Your task to perform on an android device: delete browsing data in the chrome app Image 0: 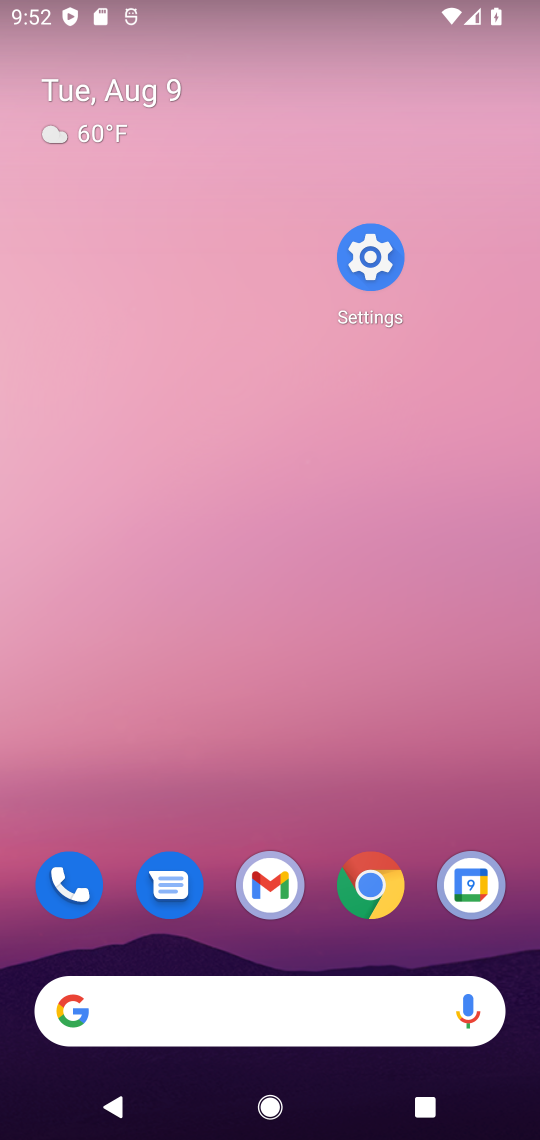
Step 0: press home button
Your task to perform on an android device: delete browsing data in the chrome app Image 1: 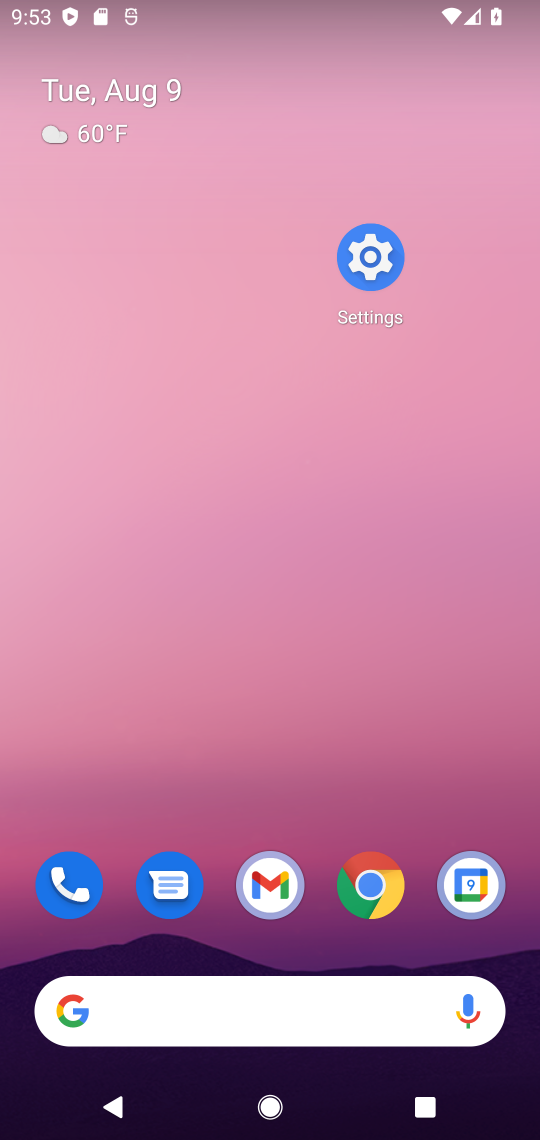
Step 1: drag from (315, 836) to (301, 78)
Your task to perform on an android device: delete browsing data in the chrome app Image 2: 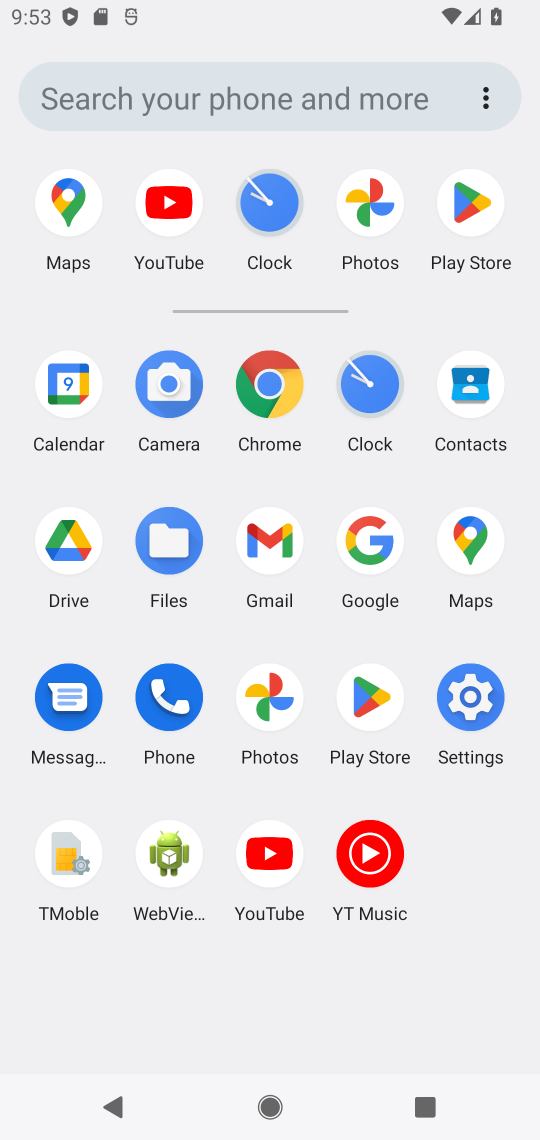
Step 2: click (263, 373)
Your task to perform on an android device: delete browsing data in the chrome app Image 3: 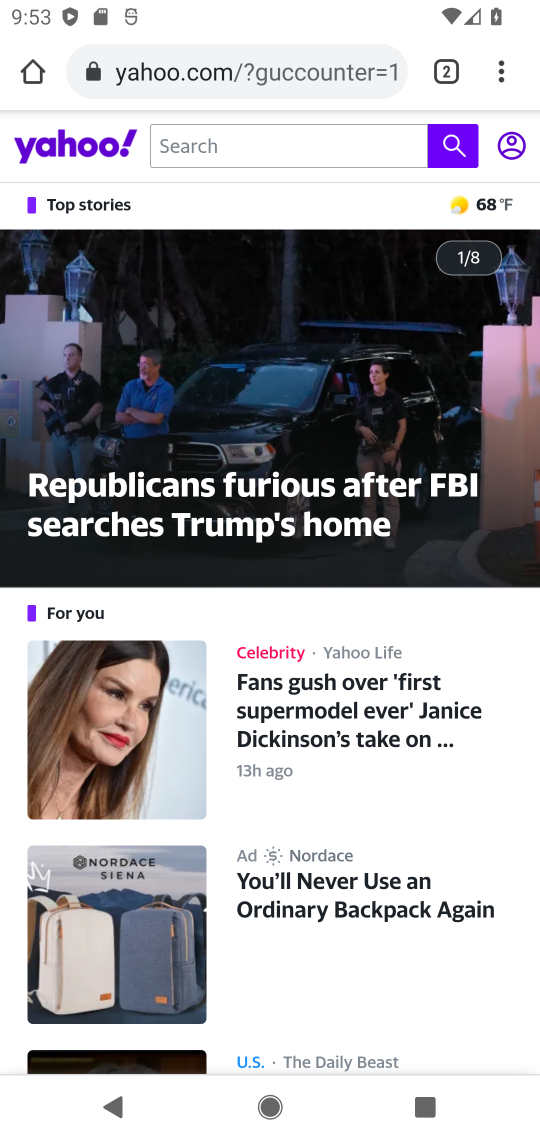
Step 3: click (503, 61)
Your task to perform on an android device: delete browsing data in the chrome app Image 4: 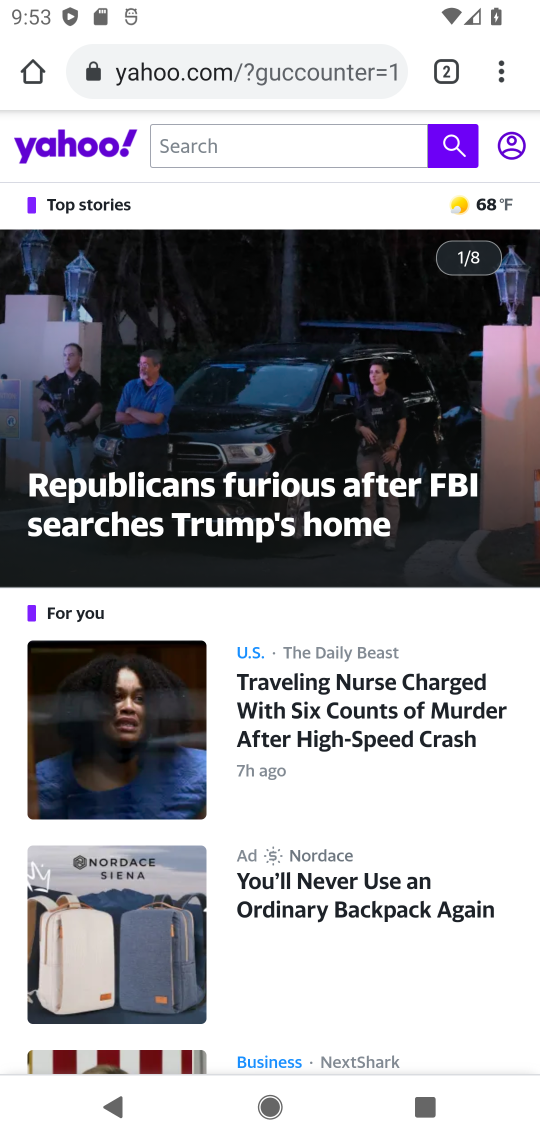
Step 4: click (491, 61)
Your task to perform on an android device: delete browsing data in the chrome app Image 5: 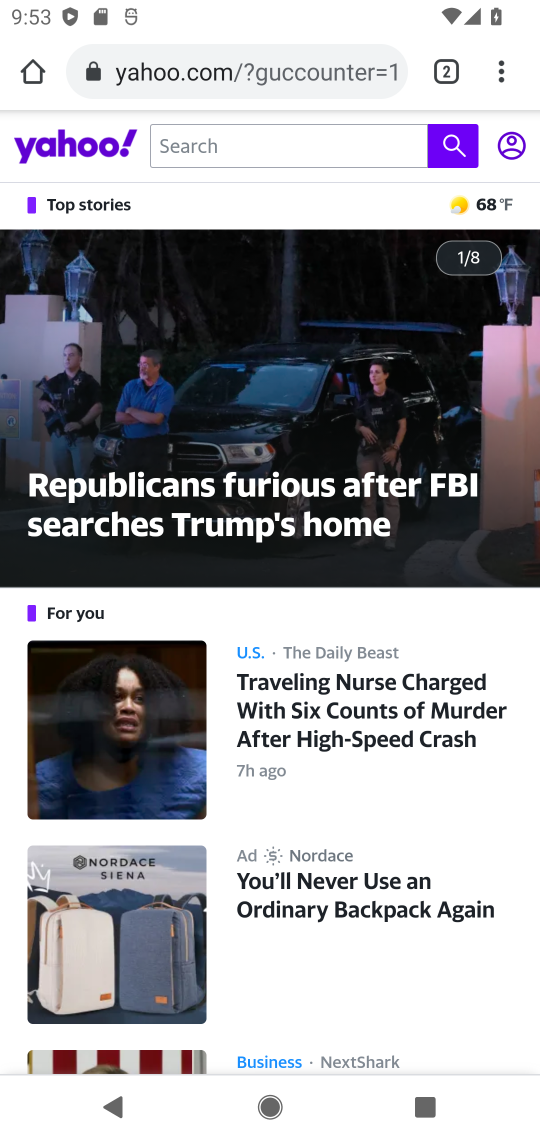
Step 5: click (503, 73)
Your task to perform on an android device: delete browsing data in the chrome app Image 6: 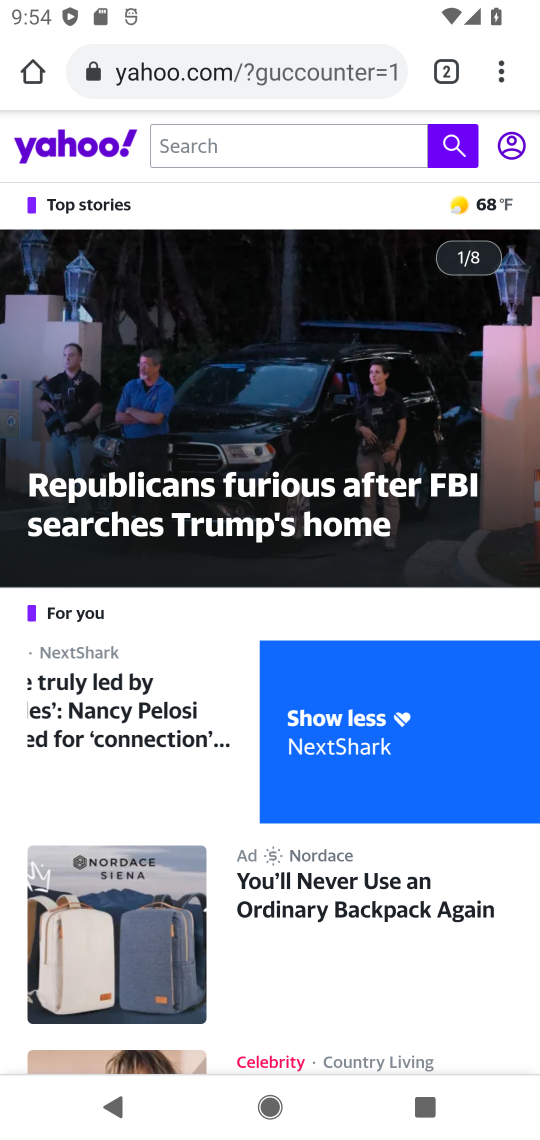
Step 6: click (501, 67)
Your task to perform on an android device: delete browsing data in the chrome app Image 7: 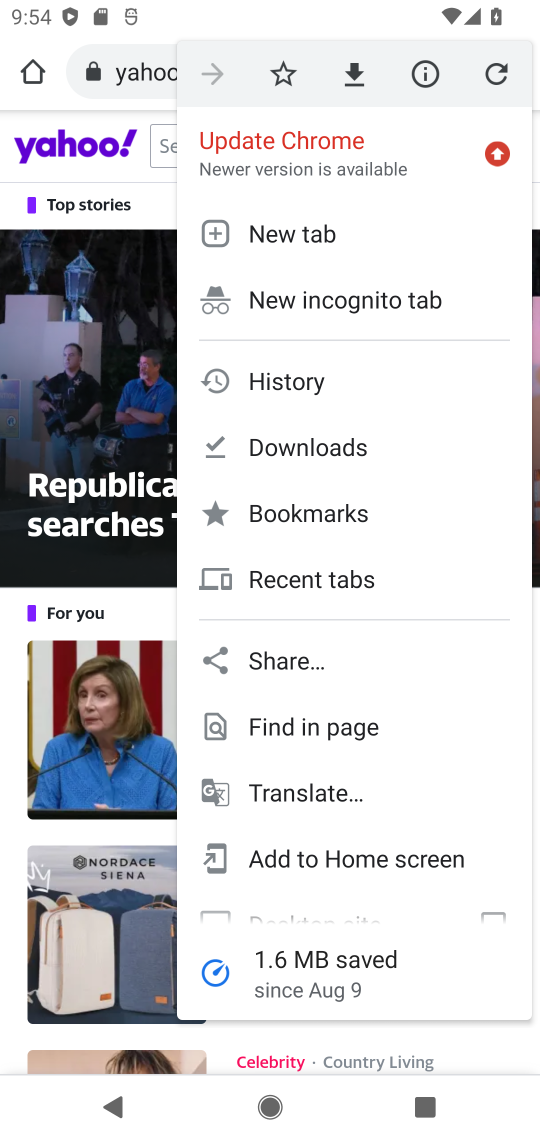
Step 7: drag from (351, 847) to (340, 286)
Your task to perform on an android device: delete browsing data in the chrome app Image 8: 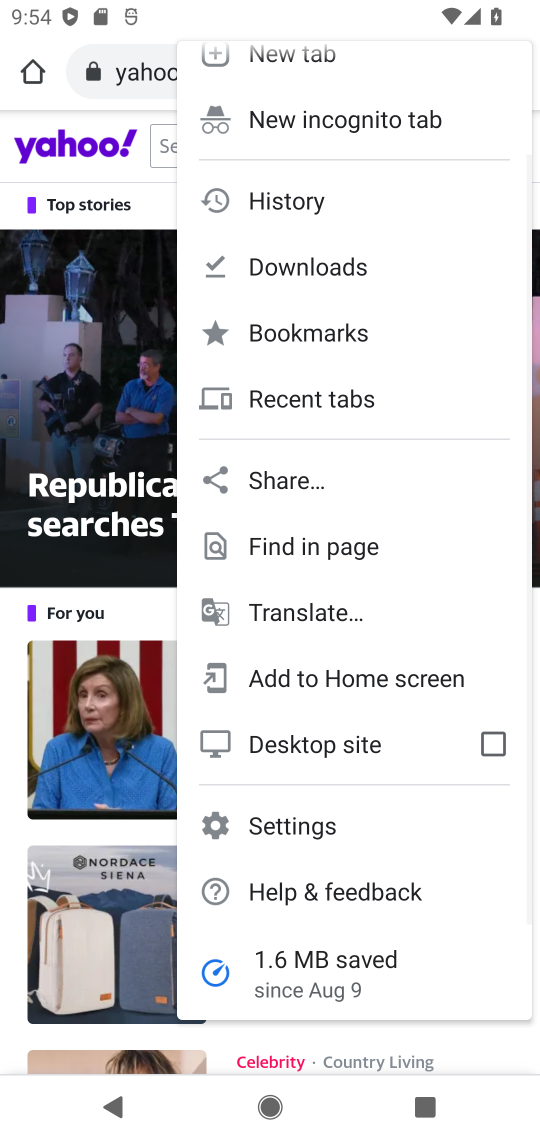
Step 8: click (320, 191)
Your task to perform on an android device: delete browsing data in the chrome app Image 9: 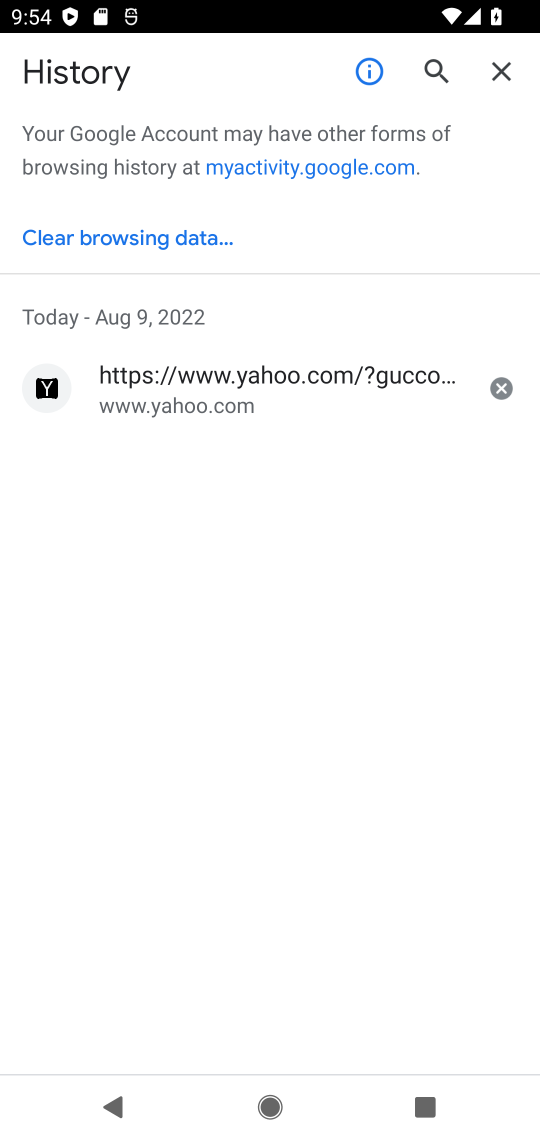
Step 9: click (104, 234)
Your task to perform on an android device: delete browsing data in the chrome app Image 10: 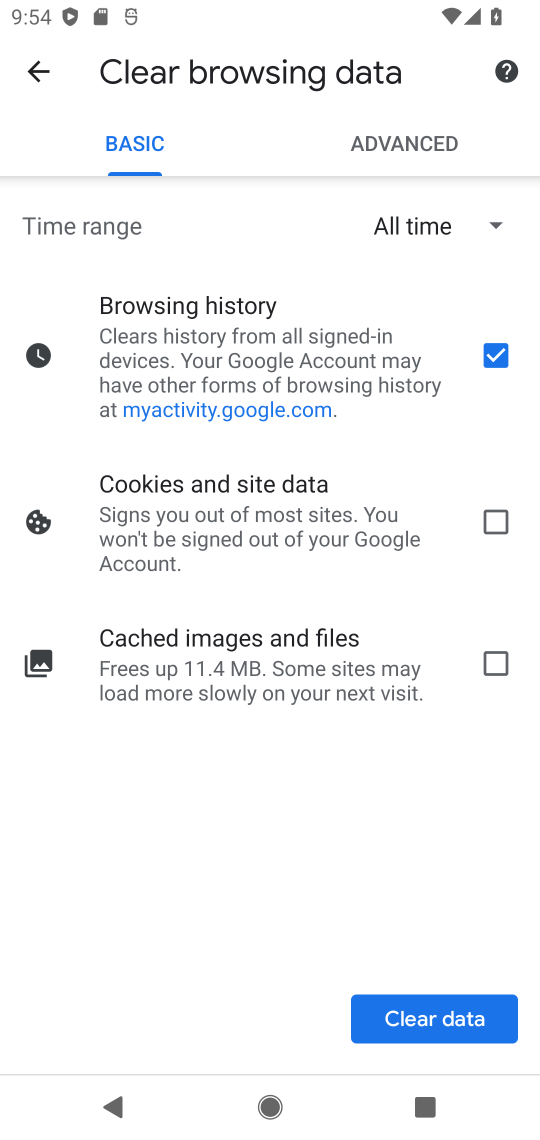
Step 10: click (433, 1015)
Your task to perform on an android device: delete browsing data in the chrome app Image 11: 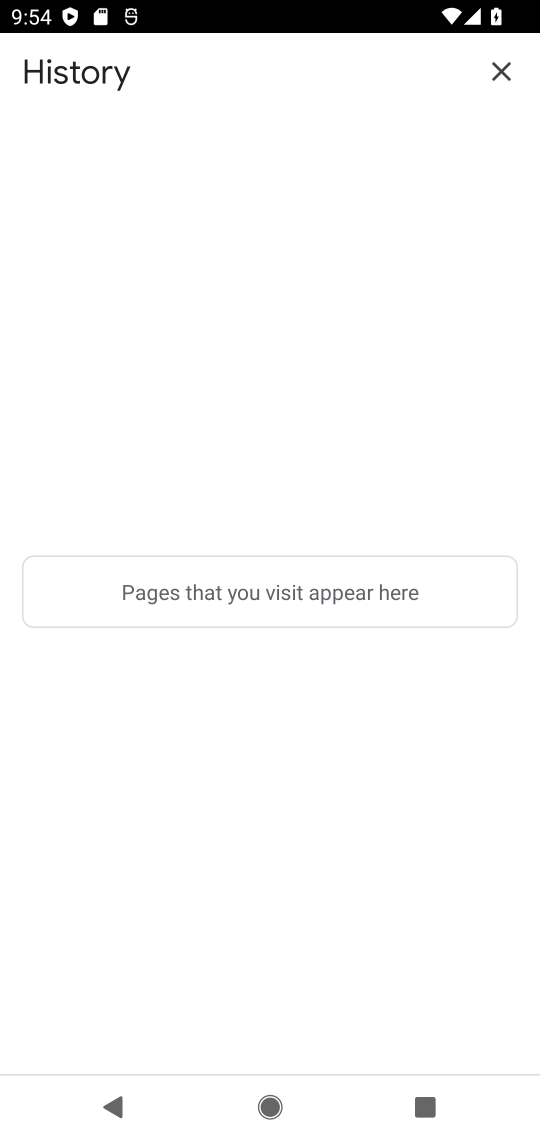
Step 11: task complete